Your task to perform on an android device: snooze an email in the gmail app Image 0: 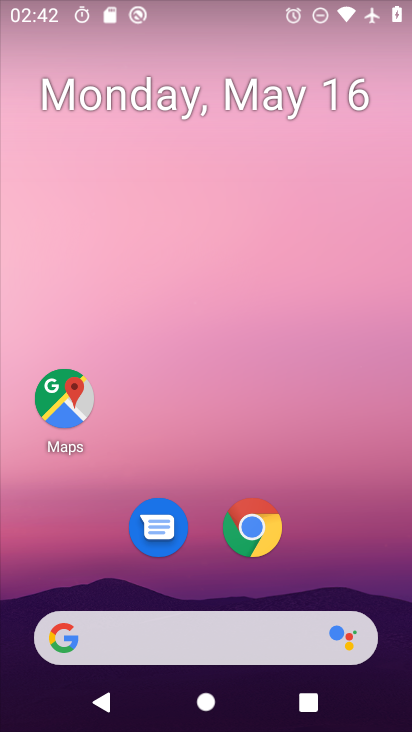
Step 0: press home button
Your task to perform on an android device: snooze an email in the gmail app Image 1: 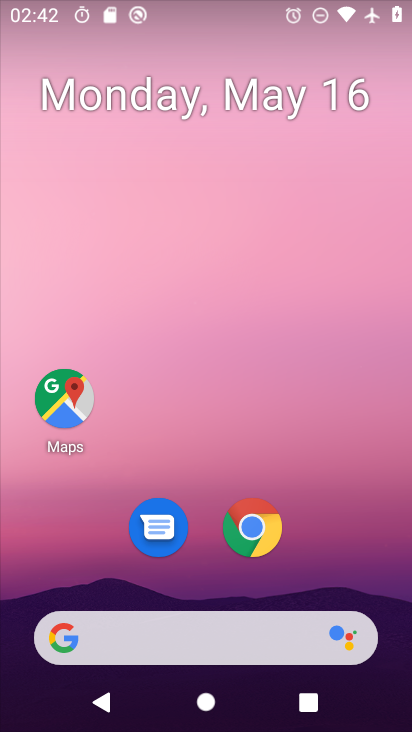
Step 1: drag from (177, 621) to (285, 204)
Your task to perform on an android device: snooze an email in the gmail app Image 2: 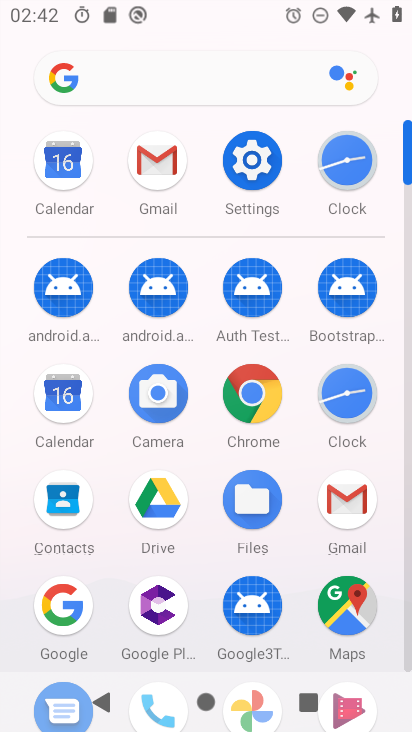
Step 2: click (159, 173)
Your task to perform on an android device: snooze an email in the gmail app Image 3: 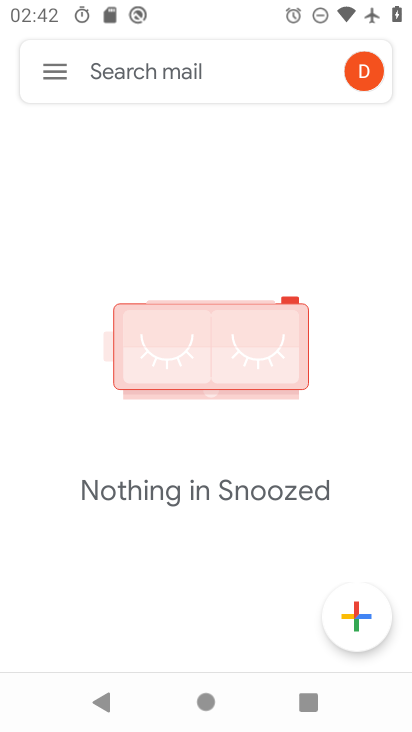
Step 3: task complete